Your task to perform on an android device: turn off airplane mode Image 0: 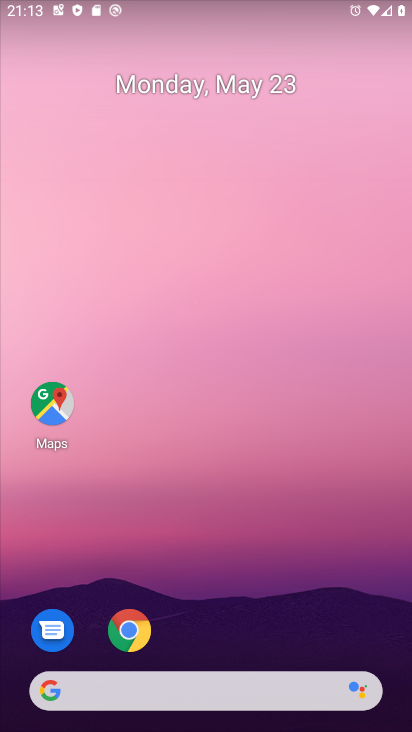
Step 0: drag from (210, 663) to (206, 287)
Your task to perform on an android device: turn off airplane mode Image 1: 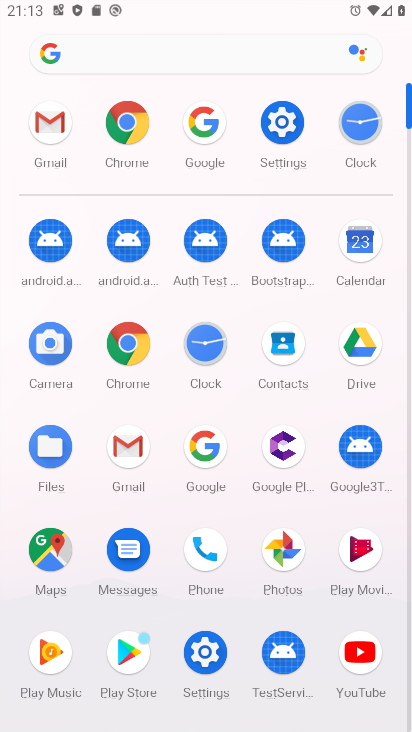
Step 1: click (298, 125)
Your task to perform on an android device: turn off airplane mode Image 2: 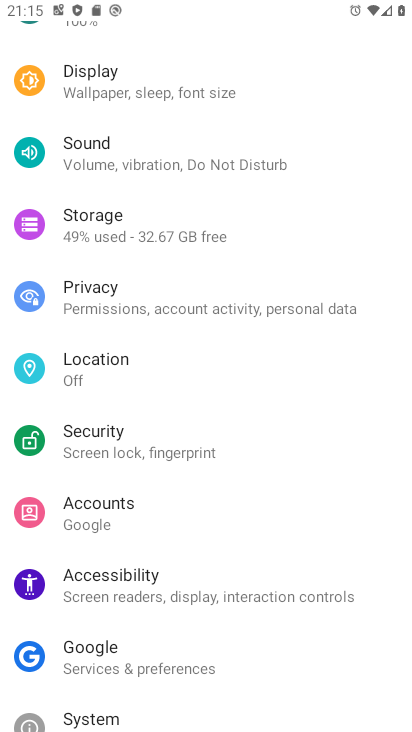
Step 2: drag from (132, 104) to (131, 619)
Your task to perform on an android device: turn off airplane mode Image 3: 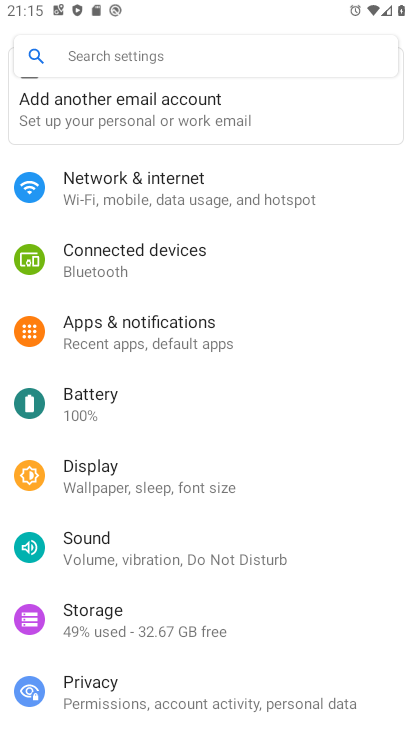
Step 3: click (131, 180)
Your task to perform on an android device: turn off airplane mode Image 4: 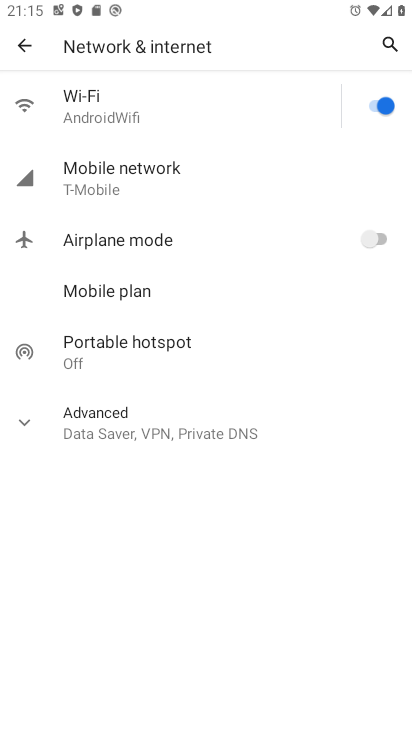
Step 4: task complete